Your task to perform on an android device: create a new album in the google photos Image 0: 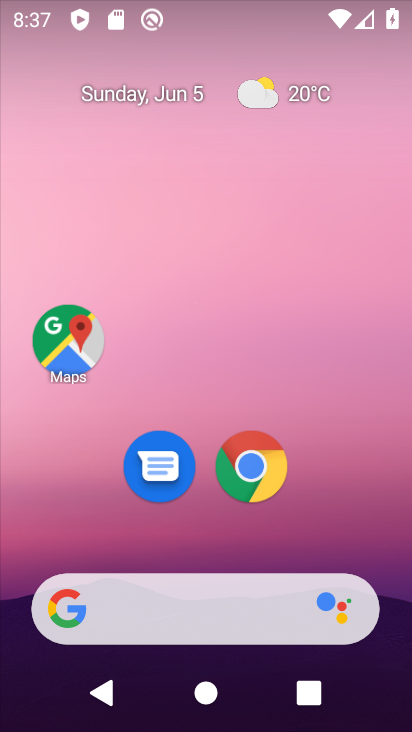
Step 0: drag from (216, 551) to (196, 324)
Your task to perform on an android device: create a new album in the google photos Image 1: 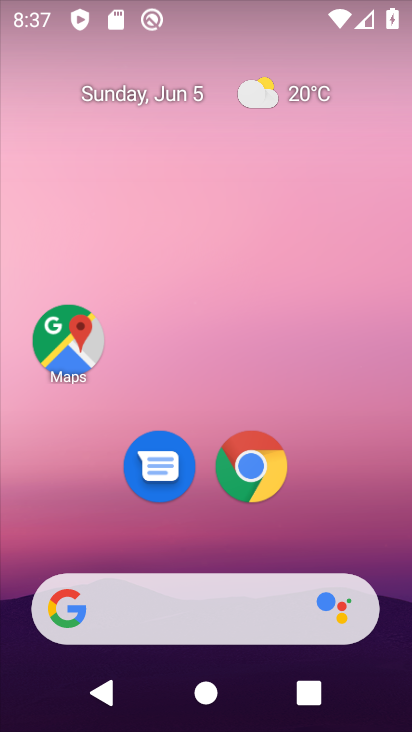
Step 1: drag from (222, 553) to (197, 166)
Your task to perform on an android device: create a new album in the google photos Image 2: 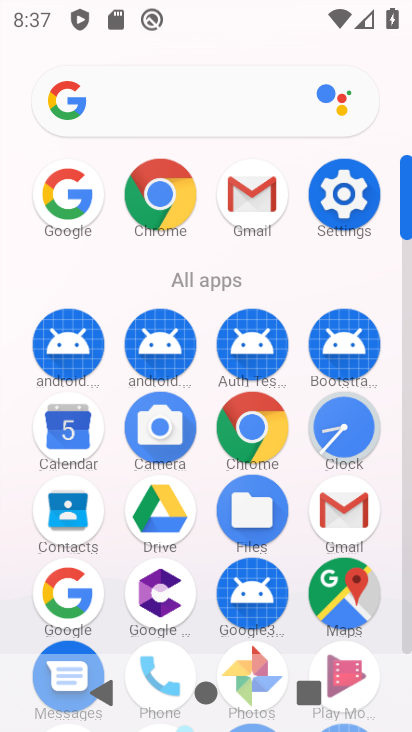
Step 2: drag from (190, 623) to (188, 450)
Your task to perform on an android device: create a new album in the google photos Image 3: 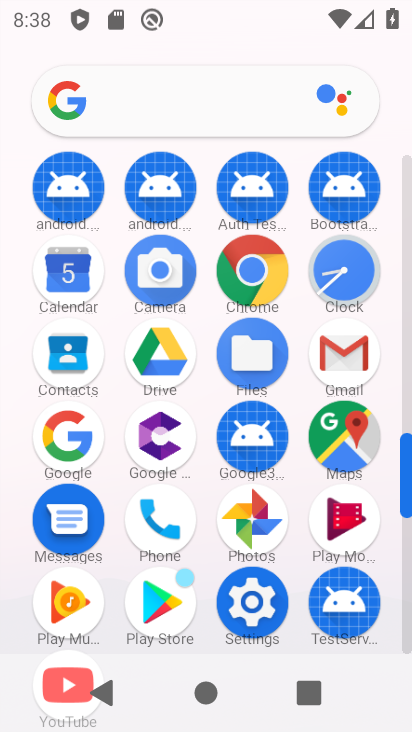
Step 3: click (256, 534)
Your task to perform on an android device: create a new album in the google photos Image 4: 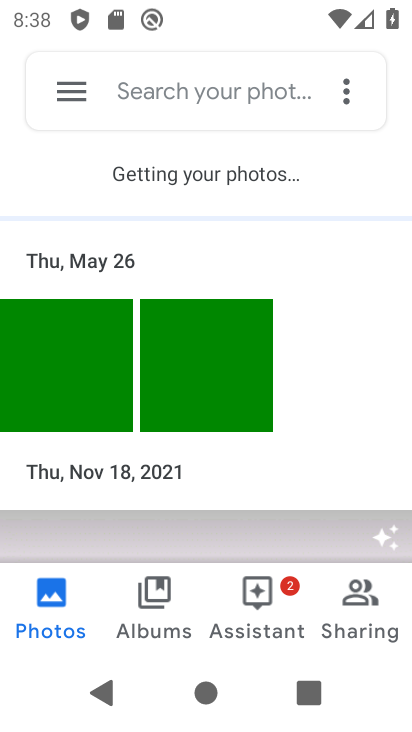
Step 4: click (143, 589)
Your task to perform on an android device: create a new album in the google photos Image 5: 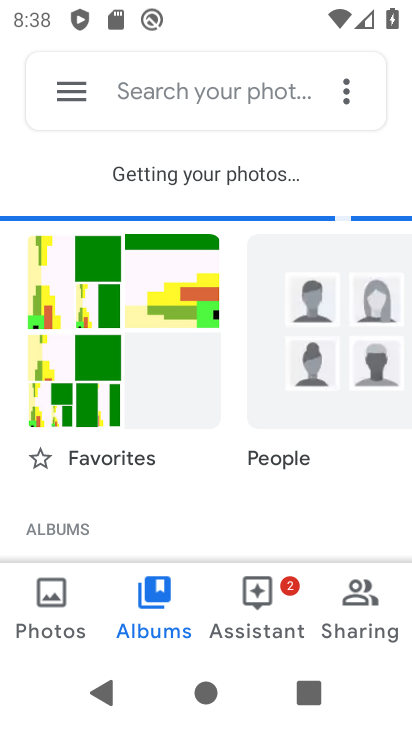
Step 5: drag from (120, 513) to (176, 332)
Your task to perform on an android device: create a new album in the google photos Image 6: 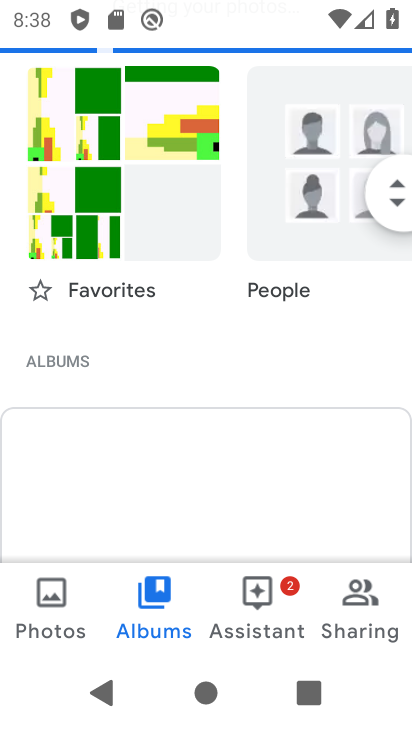
Step 6: drag from (199, 490) to (202, 337)
Your task to perform on an android device: create a new album in the google photos Image 7: 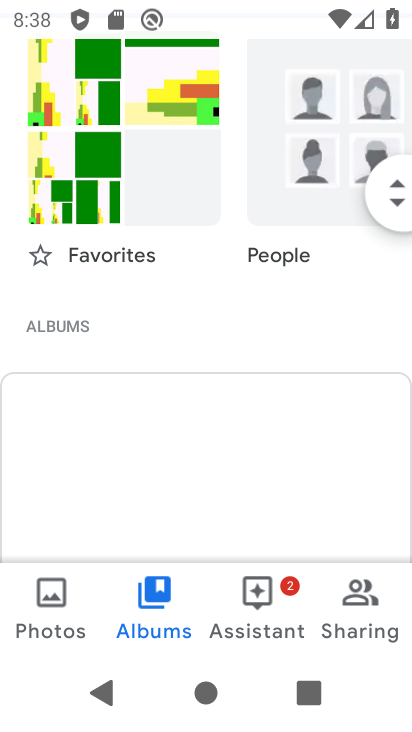
Step 7: drag from (232, 473) to (247, 240)
Your task to perform on an android device: create a new album in the google photos Image 8: 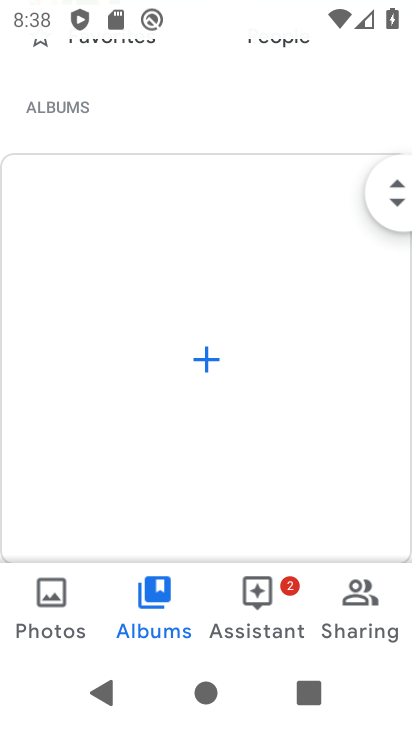
Step 8: click (199, 373)
Your task to perform on an android device: create a new album in the google photos Image 9: 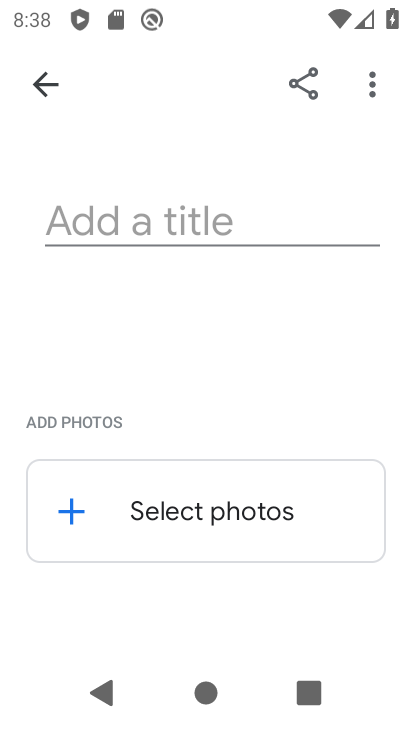
Step 9: click (182, 210)
Your task to perform on an android device: create a new album in the google photos Image 10: 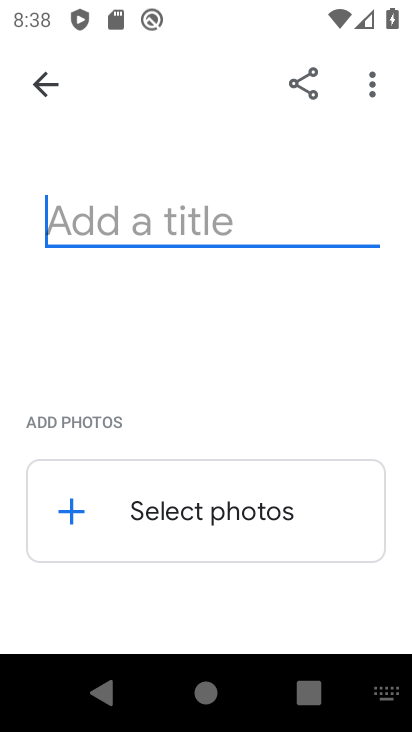
Step 10: type "Nirankari"
Your task to perform on an android device: create a new album in the google photos Image 11: 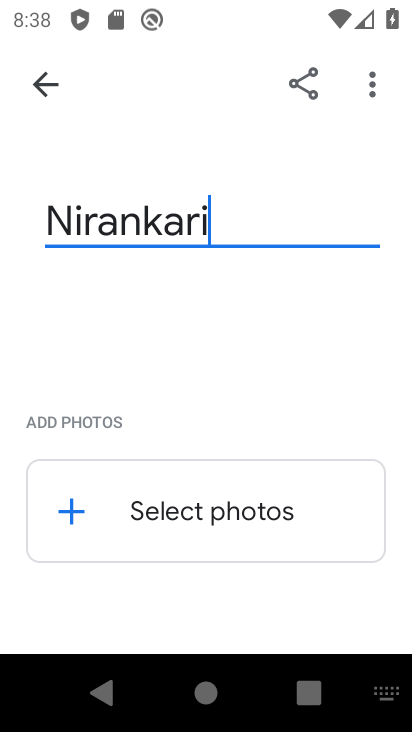
Step 11: click (73, 504)
Your task to perform on an android device: create a new album in the google photos Image 12: 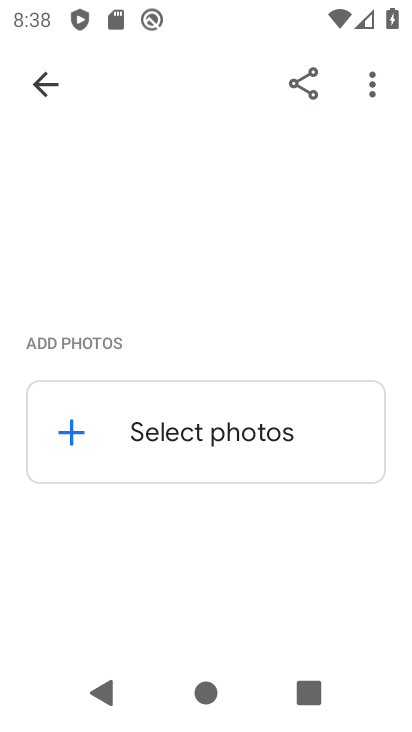
Step 12: click (73, 440)
Your task to perform on an android device: create a new album in the google photos Image 13: 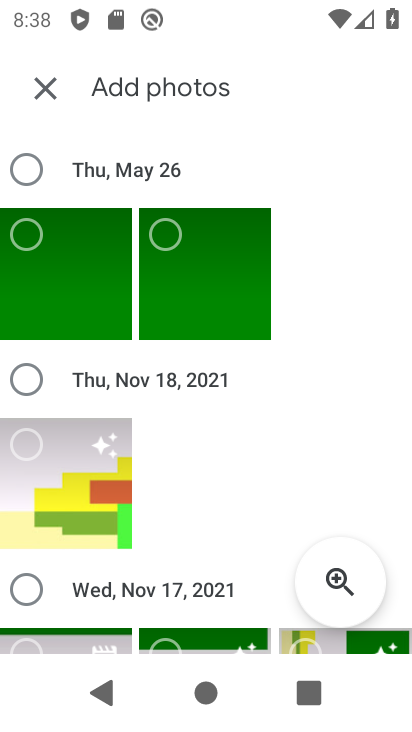
Step 13: click (17, 245)
Your task to perform on an android device: create a new album in the google photos Image 14: 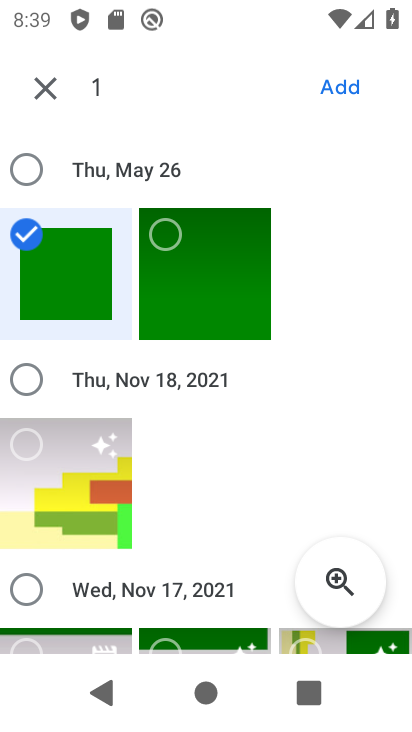
Step 14: click (17, 245)
Your task to perform on an android device: create a new album in the google photos Image 15: 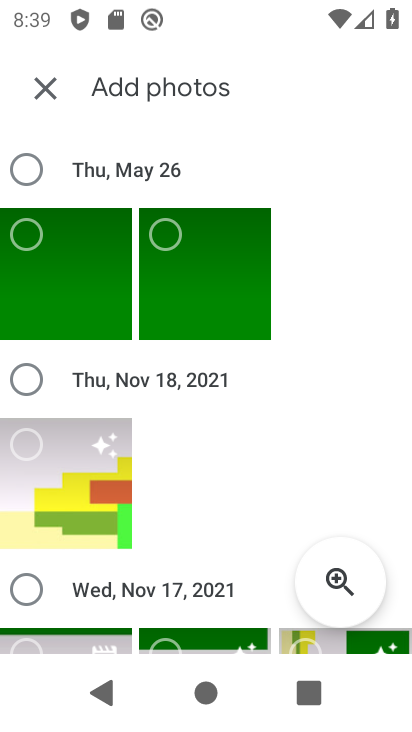
Step 15: click (32, 239)
Your task to perform on an android device: create a new album in the google photos Image 16: 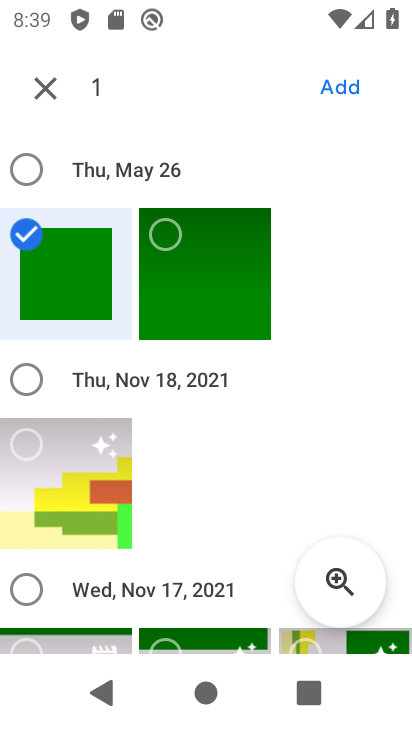
Step 16: click (169, 227)
Your task to perform on an android device: create a new album in the google photos Image 17: 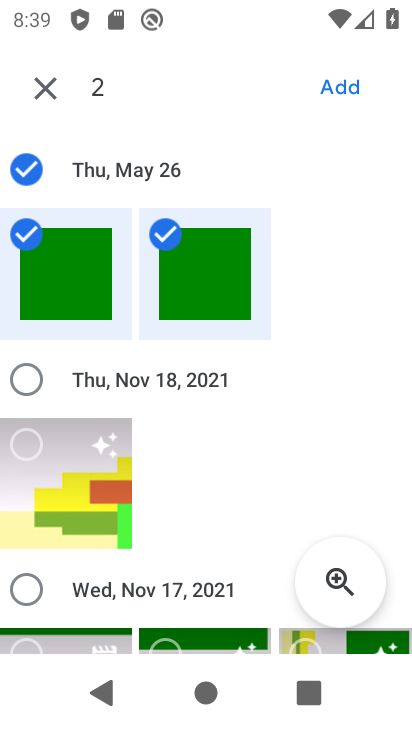
Step 17: click (358, 92)
Your task to perform on an android device: create a new album in the google photos Image 18: 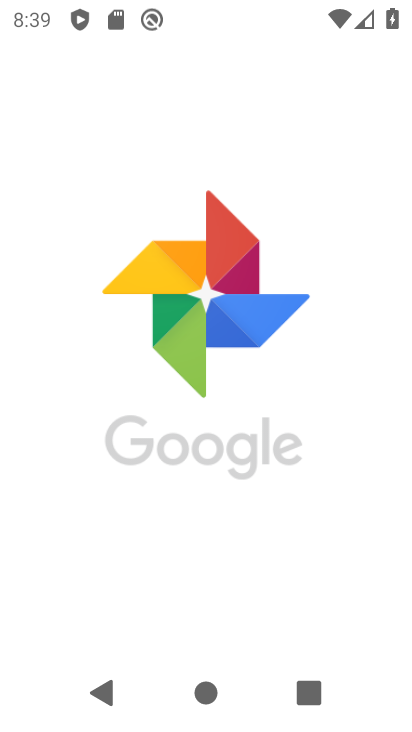
Step 18: task complete